Your task to perform on an android device: choose inbox layout in the gmail app Image 0: 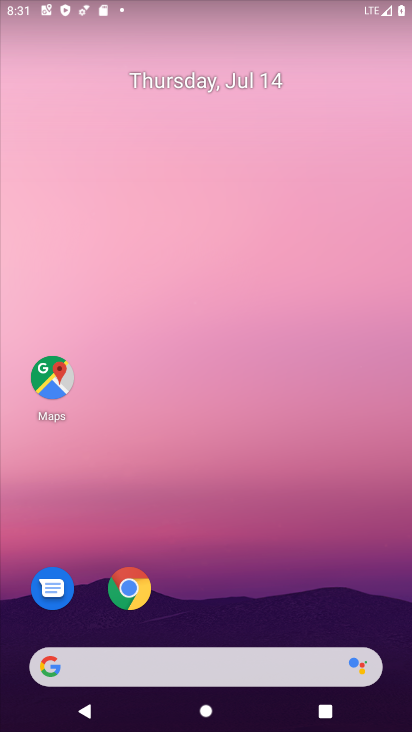
Step 0: drag from (342, 598) to (111, 6)
Your task to perform on an android device: choose inbox layout in the gmail app Image 1: 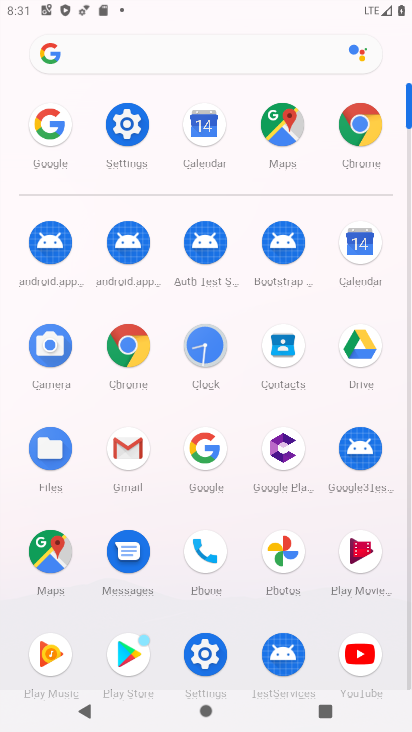
Step 1: click (122, 450)
Your task to perform on an android device: choose inbox layout in the gmail app Image 2: 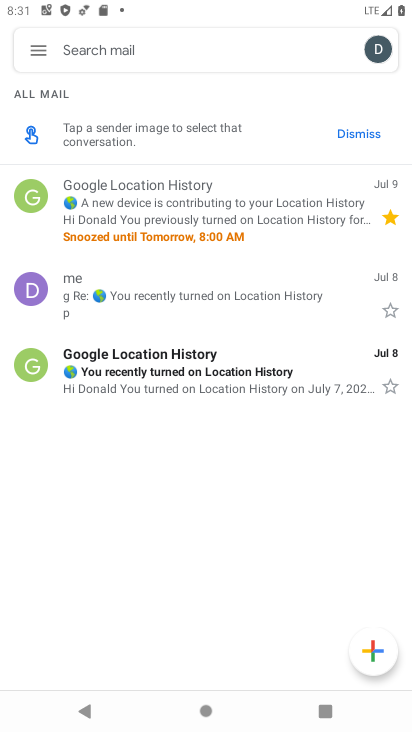
Step 2: task complete